Your task to perform on an android device: turn off notifications settings in the gmail app Image 0: 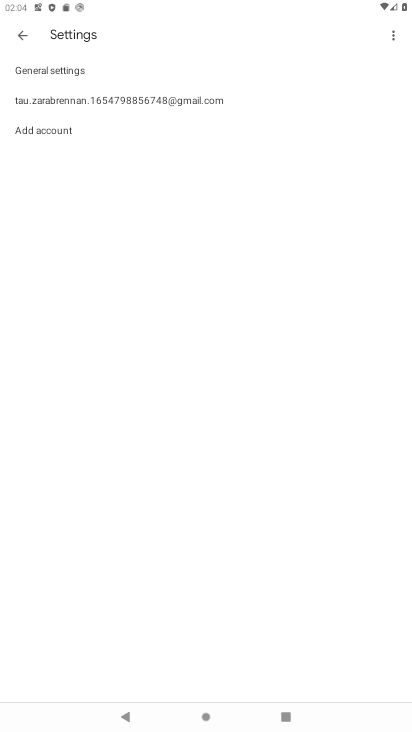
Step 0: press home button
Your task to perform on an android device: turn off notifications settings in the gmail app Image 1: 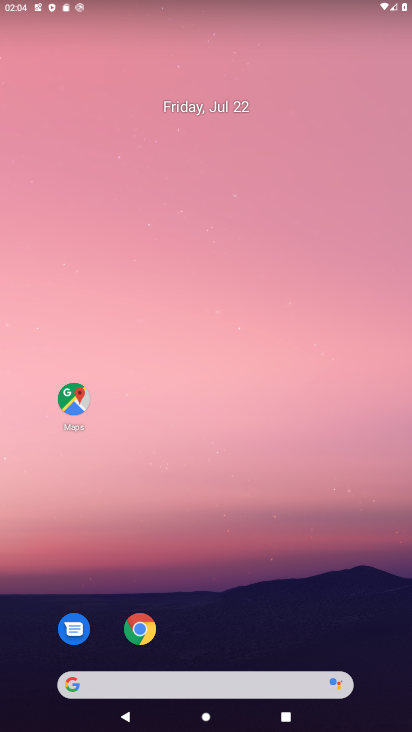
Step 1: drag from (28, 681) to (214, 154)
Your task to perform on an android device: turn off notifications settings in the gmail app Image 2: 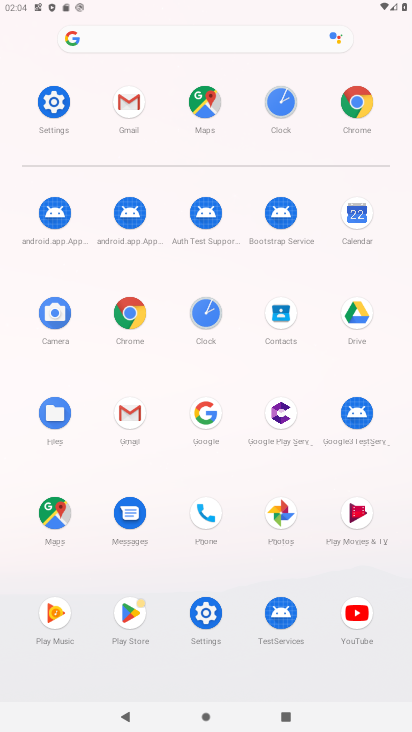
Step 2: click (137, 110)
Your task to perform on an android device: turn off notifications settings in the gmail app Image 3: 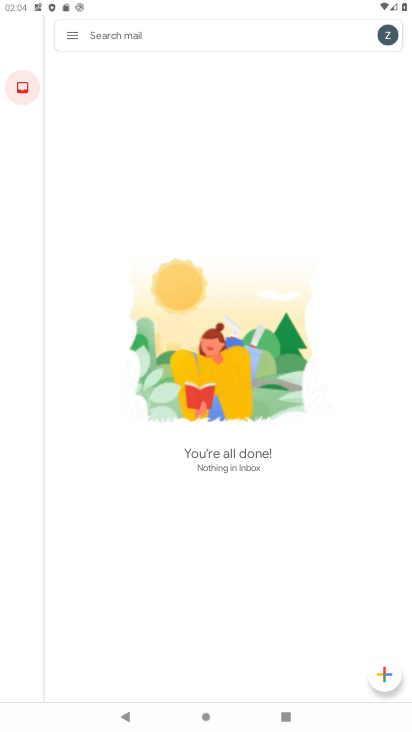
Step 3: click (70, 38)
Your task to perform on an android device: turn off notifications settings in the gmail app Image 4: 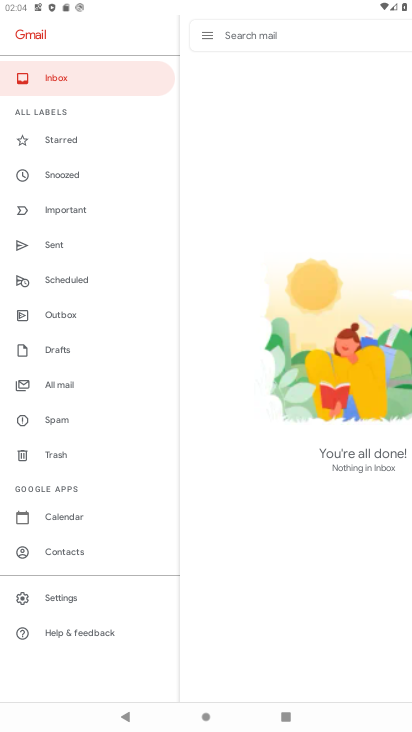
Step 4: click (50, 587)
Your task to perform on an android device: turn off notifications settings in the gmail app Image 5: 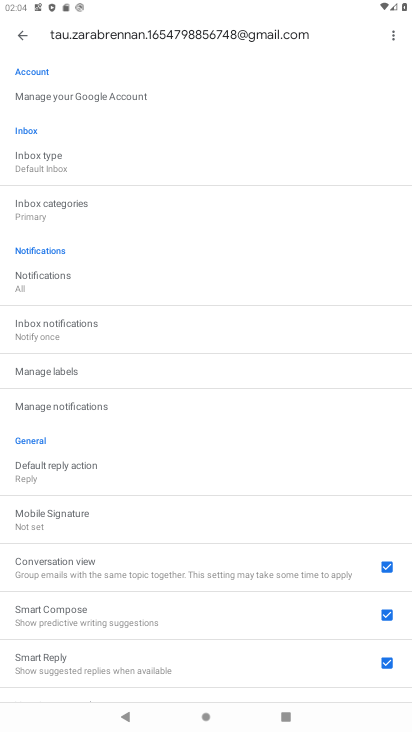
Step 5: click (100, 411)
Your task to perform on an android device: turn off notifications settings in the gmail app Image 6: 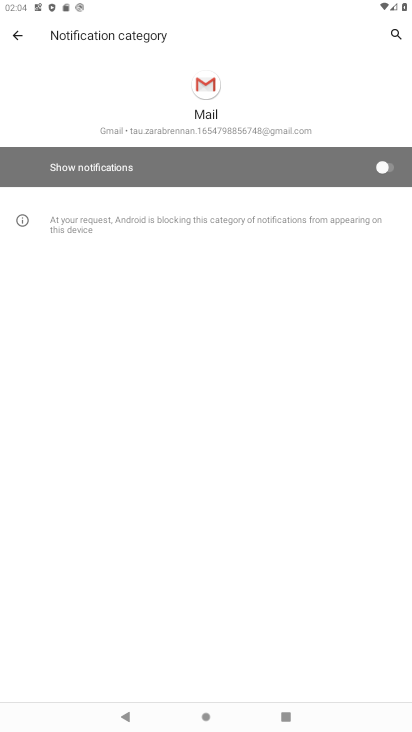
Step 6: task complete